Your task to perform on an android device: find which apps use the phone's location Image 0: 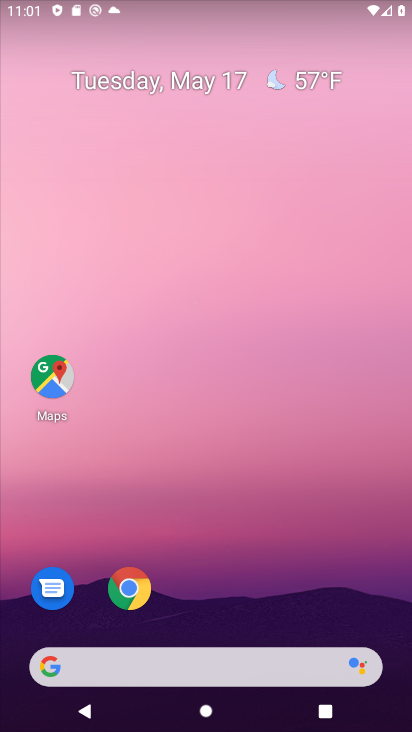
Step 0: drag from (217, 599) to (250, 183)
Your task to perform on an android device: find which apps use the phone's location Image 1: 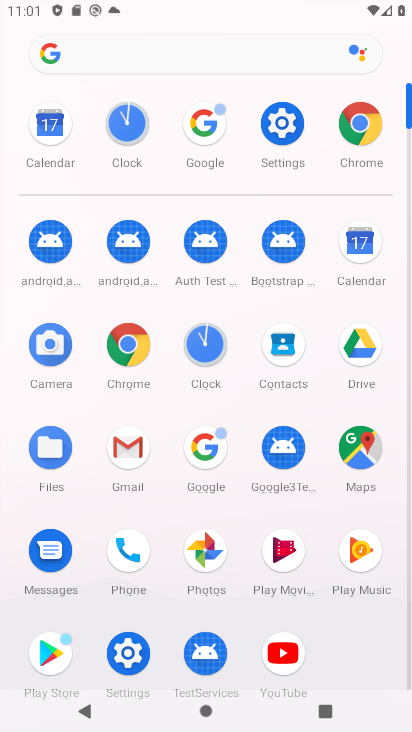
Step 1: click (282, 131)
Your task to perform on an android device: find which apps use the phone's location Image 2: 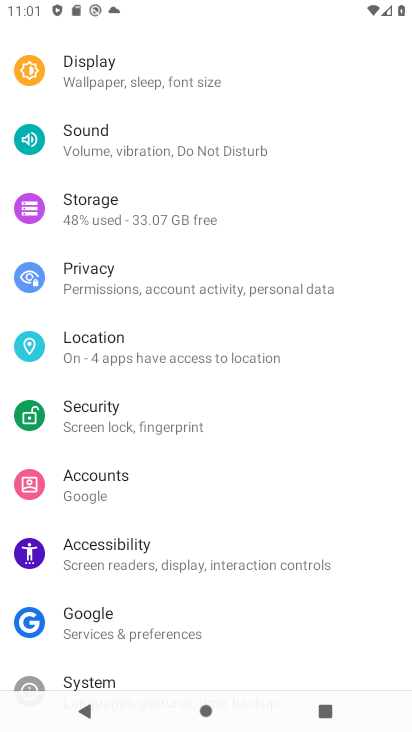
Step 2: drag from (188, 602) to (192, 518)
Your task to perform on an android device: find which apps use the phone's location Image 3: 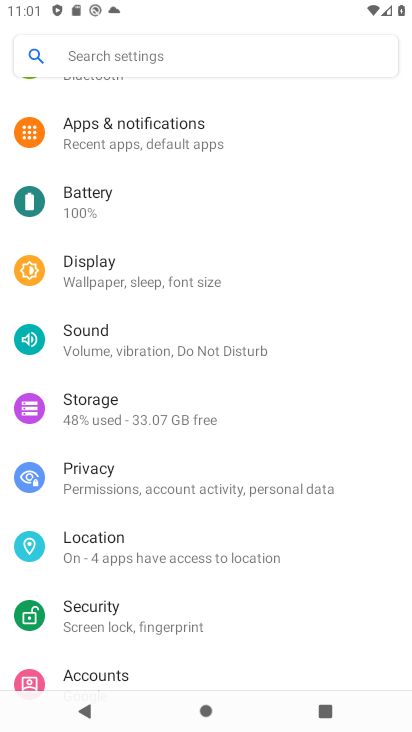
Step 3: click (173, 558)
Your task to perform on an android device: find which apps use the phone's location Image 4: 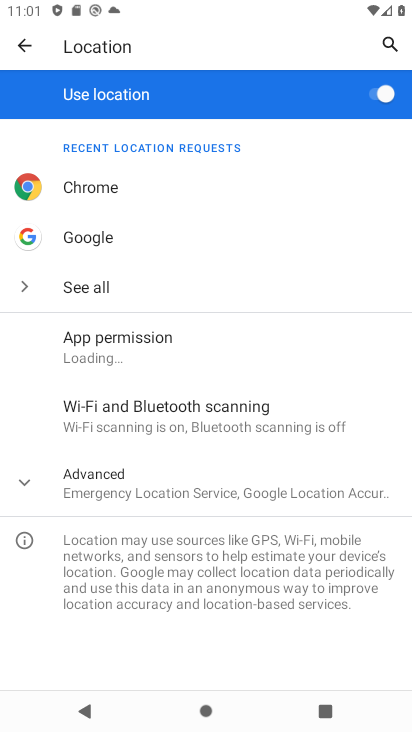
Step 4: click (188, 193)
Your task to perform on an android device: find which apps use the phone's location Image 5: 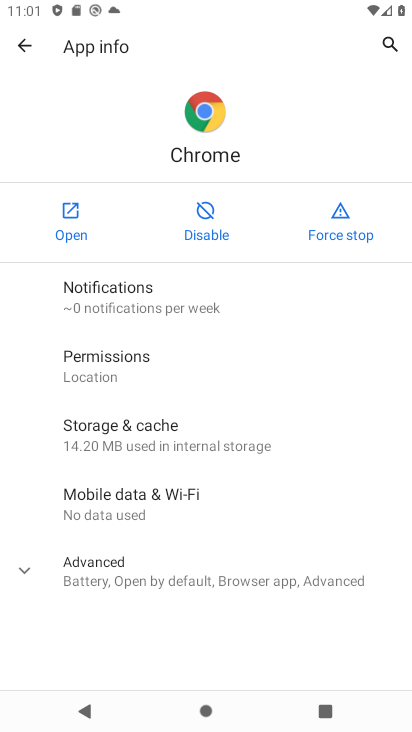
Step 5: click (155, 373)
Your task to perform on an android device: find which apps use the phone's location Image 6: 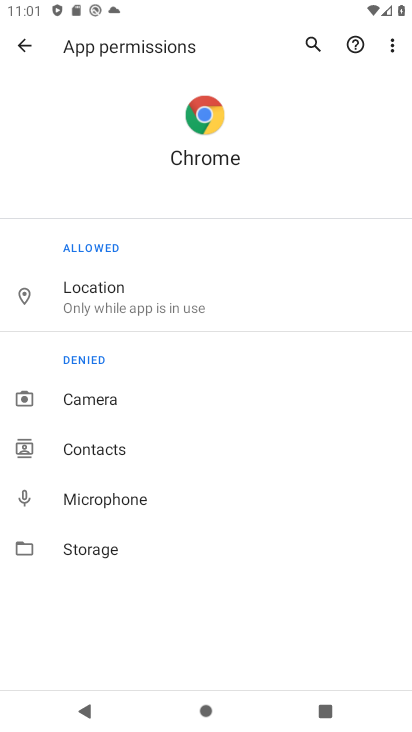
Step 6: task complete